Your task to perform on an android device: delete location history Image 0: 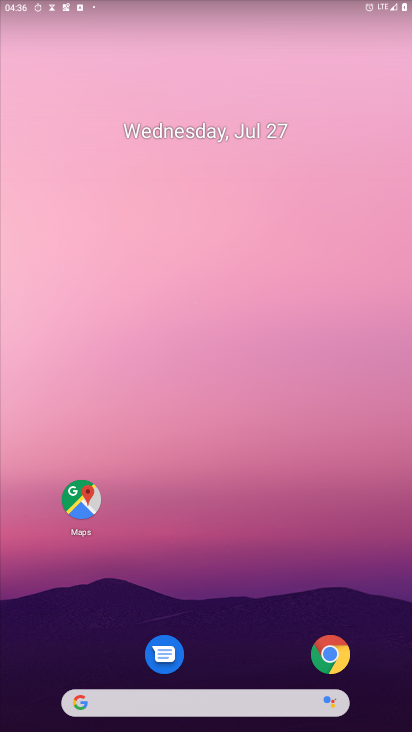
Step 0: drag from (287, 710) to (358, 13)
Your task to perform on an android device: delete location history Image 1: 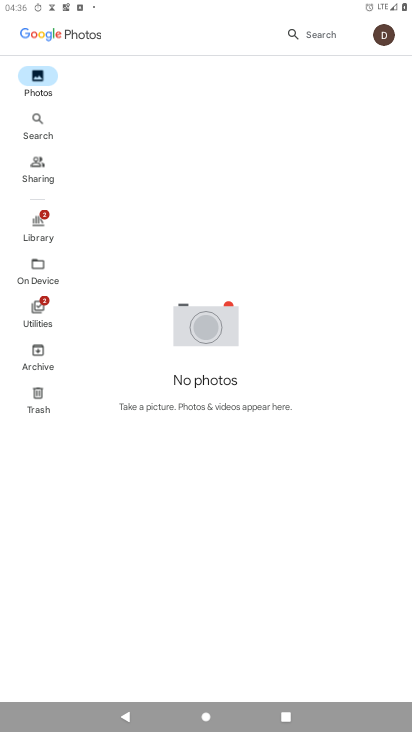
Step 1: press home button
Your task to perform on an android device: delete location history Image 2: 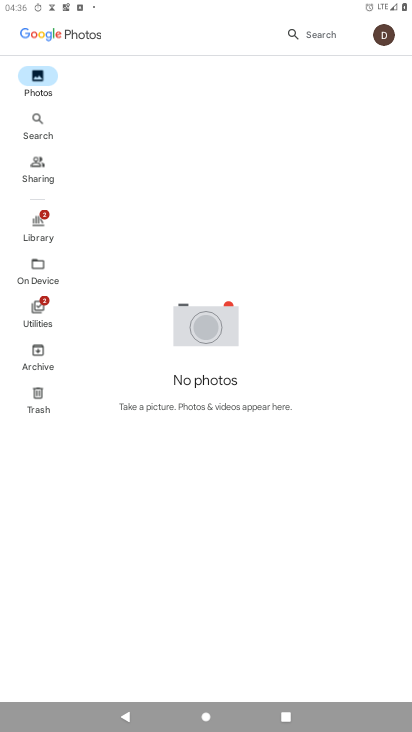
Step 2: click (407, 656)
Your task to perform on an android device: delete location history Image 3: 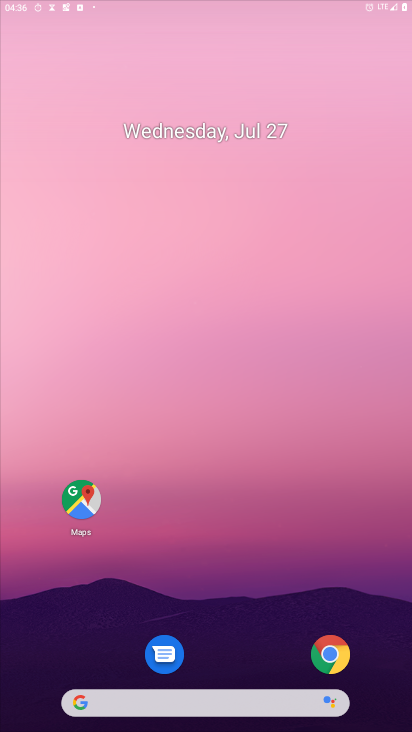
Step 3: drag from (206, 699) to (188, 141)
Your task to perform on an android device: delete location history Image 4: 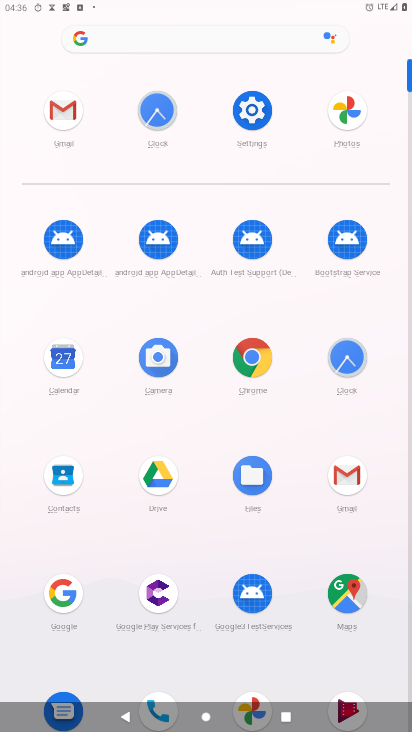
Step 4: click (352, 588)
Your task to perform on an android device: delete location history Image 5: 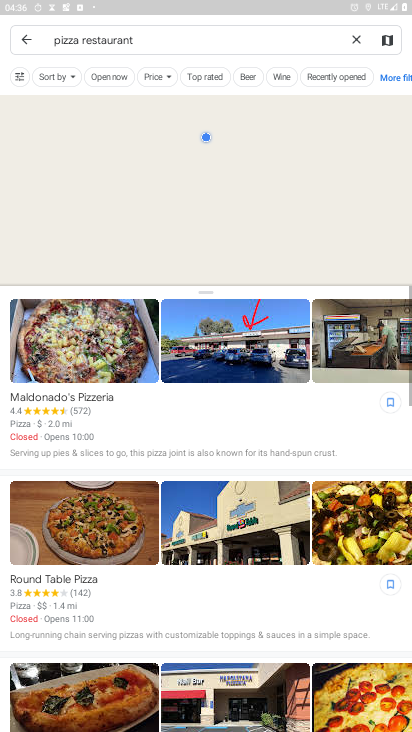
Step 5: press back button
Your task to perform on an android device: delete location history Image 6: 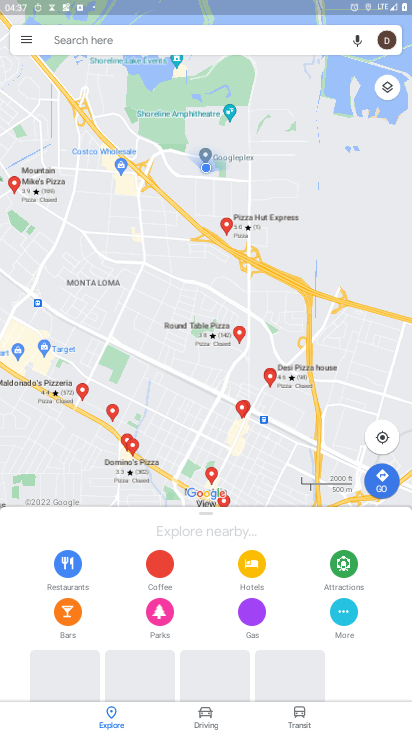
Step 6: click (28, 33)
Your task to perform on an android device: delete location history Image 7: 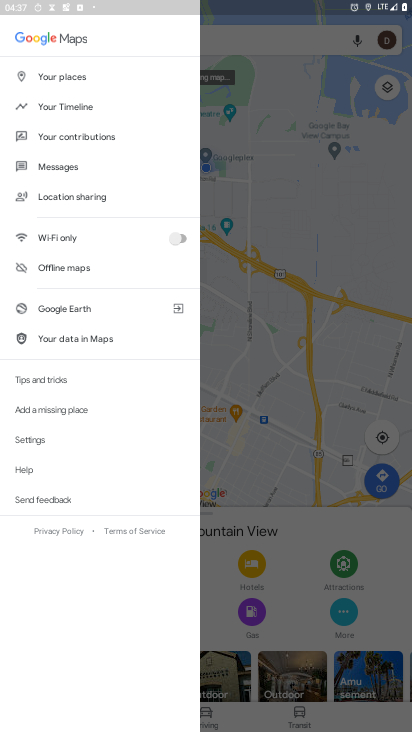
Step 7: click (22, 35)
Your task to perform on an android device: delete location history Image 8: 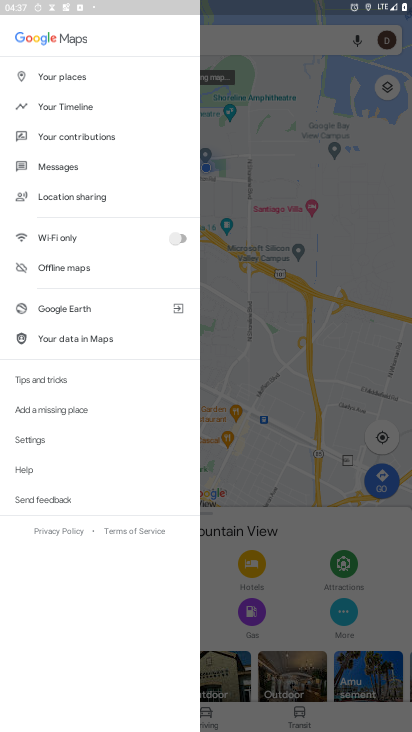
Step 8: click (76, 102)
Your task to perform on an android device: delete location history Image 9: 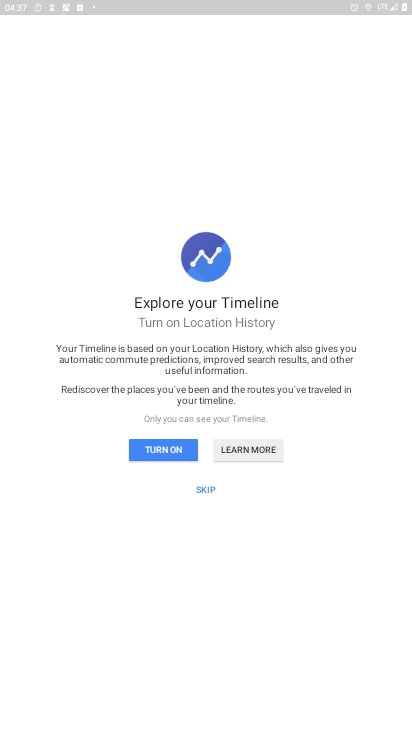
Step 9: click (201, 480)
Your task to perform on an android device: delete location history Image 10: 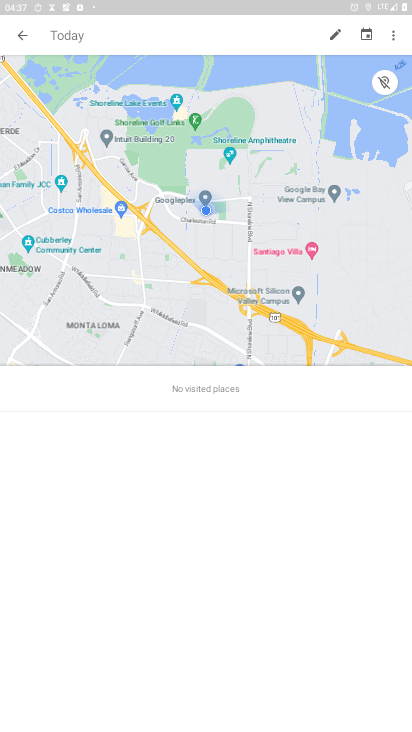
Step 10: click (392, 33)
Your task to perform on an android device: delete location history Image 11: 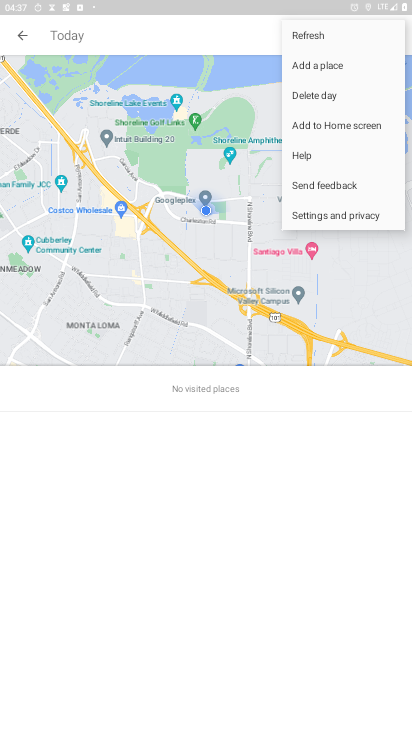
Step 11: click (319, 215)
Your task to perform on an android device: delete location history Image 12: 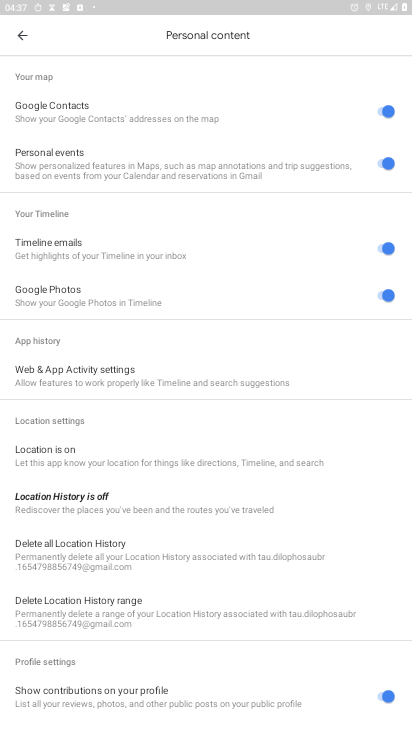
Step 12: click (98, 550)
Your task to perform on an android device: delete location history Image 13: 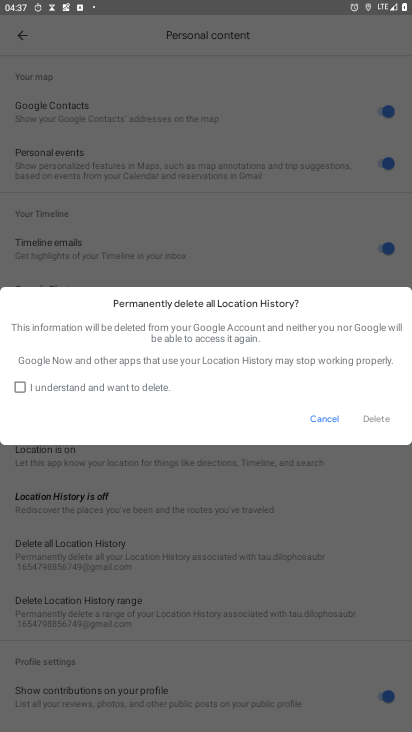
Step 13: click (12, 381)
Your task to perform on an android device: delete location history Image 14: 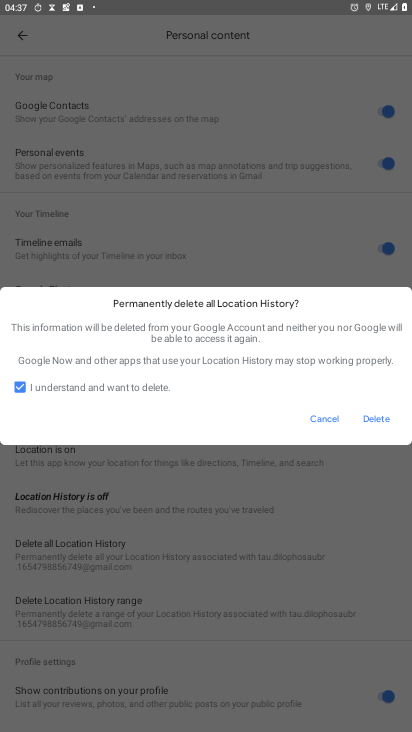
Step 14: click (378, 414)
Your task to perform on an android device: delete location history Image 15: 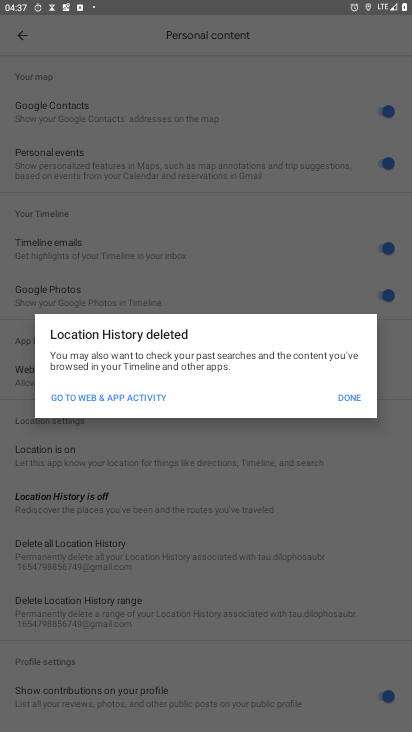
Step 15: click (350, 401)
Your task to perform on an android device: delete location history Image 16: 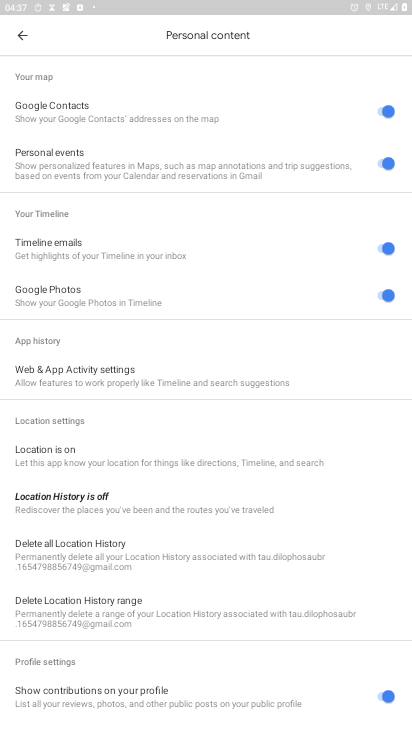
Step 16: task complete